Your task to perform on an android device: When is my next appointment? Image 0: 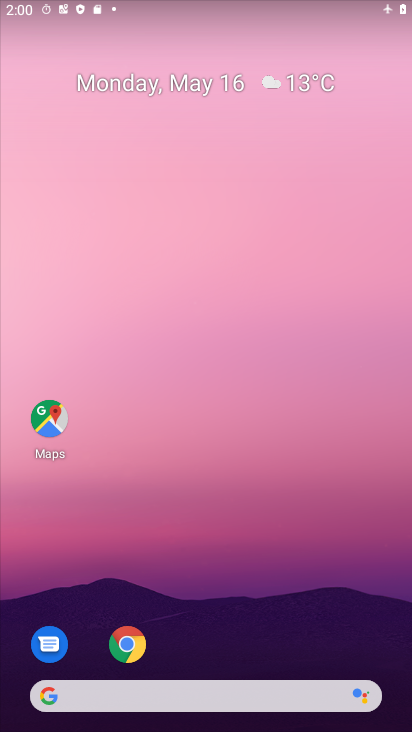
Step 0: drag from (218, 671) to (208, 137)
Your task to perform on an android device: When is my next appointment? Image 1: 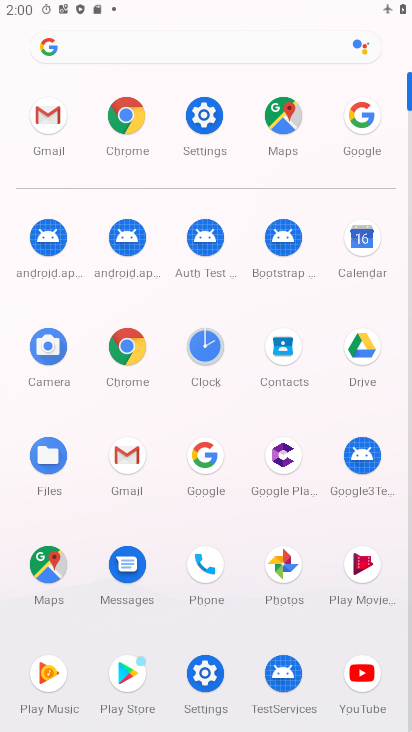
Step 1: click (372, 253)
Your task to perform on an android device: When is my next appointment? Image 2: 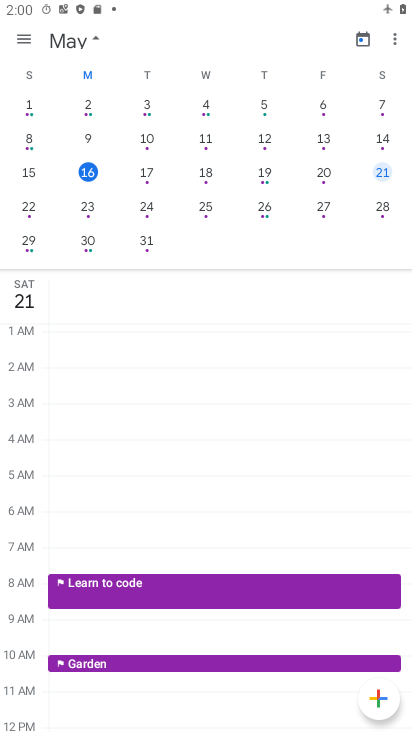
Step 2: click (86, 181)
Your task to perform on an android device: When is my next appointment? Image 3: 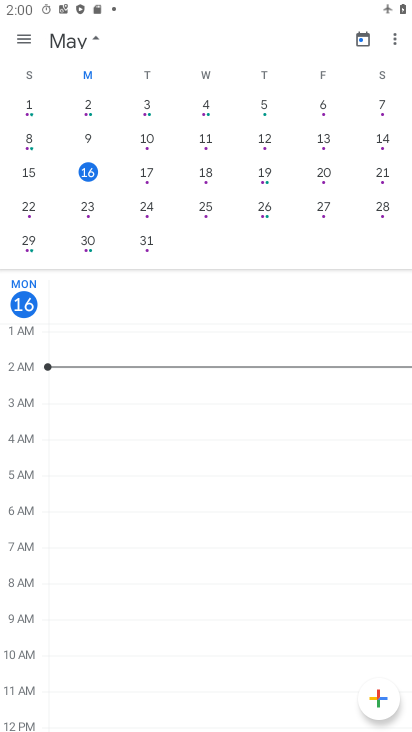
Step 3: click (86, 179)
Your task to perform on an android device: When is my next appointment? Image 4: 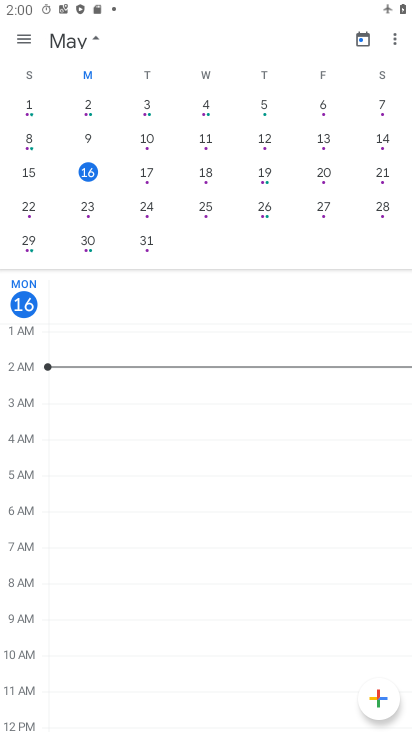
Step 4: task complete